Your task to perform on an android device: search for starred emails in the gmail app Image 0: 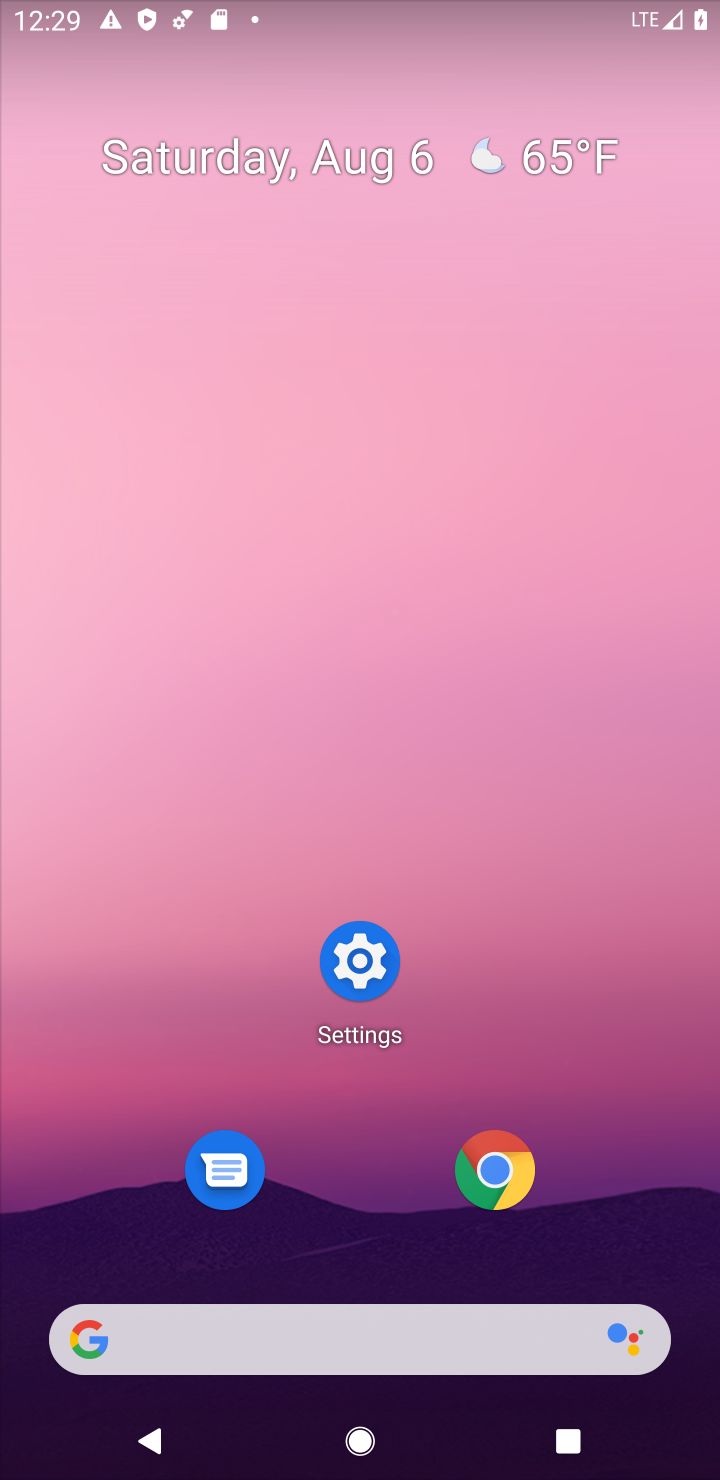
Step 0: drag from (364, 1160) to (536, 56)
Your task to perform on an android device: search for starred emails in the gmail app Image 1: 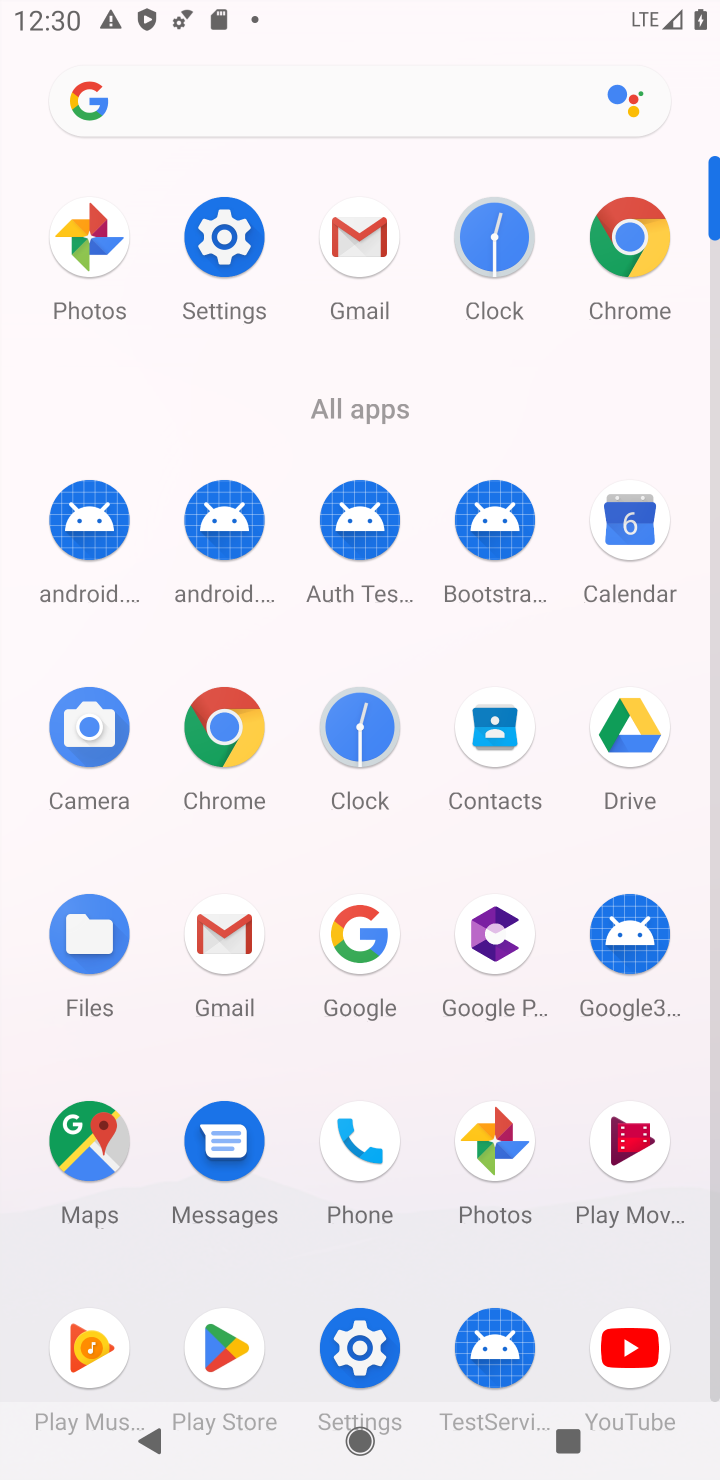
Step 1: click (351, 249)
Your task to perform on an android device: search for starred emails in the gmail app Image 2: 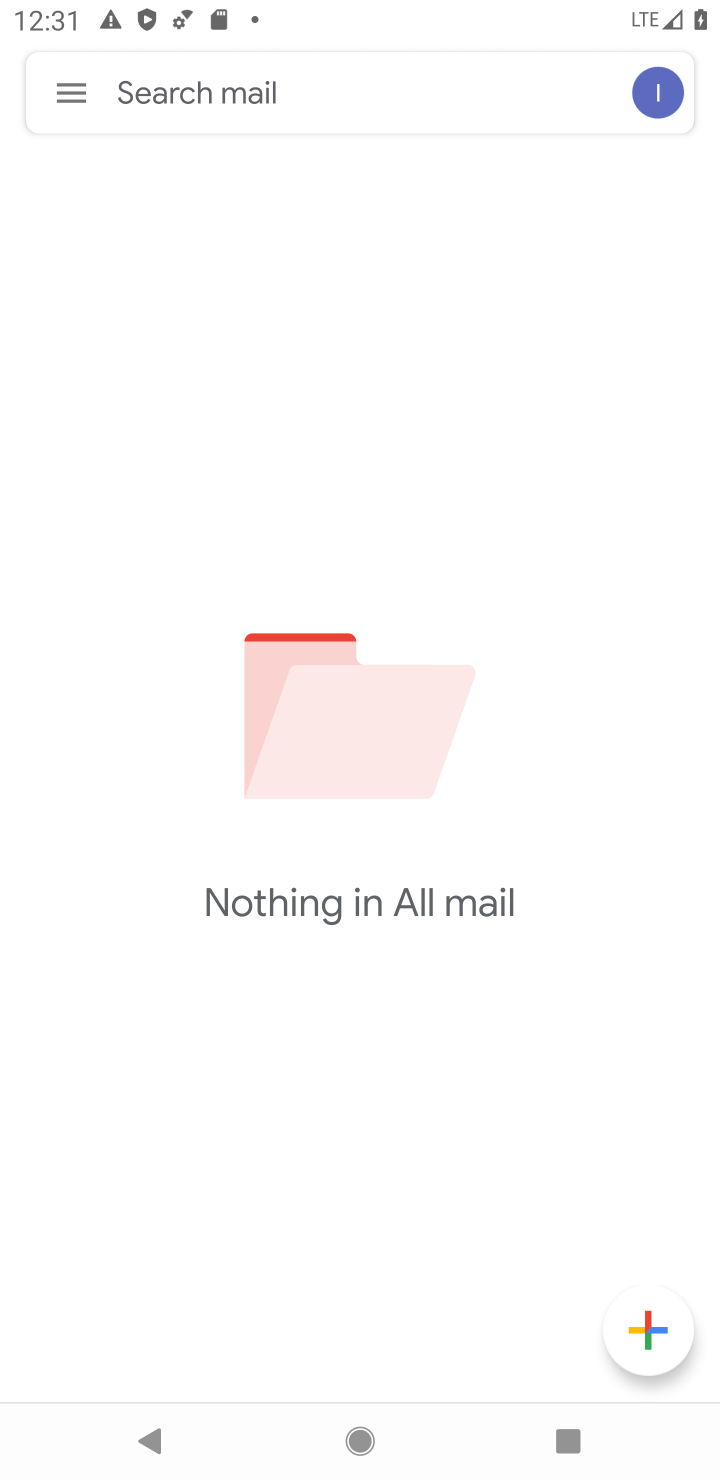
Step 2: task complete